Your task to perform on an android device: turn smart compose on in the gmail app Image 0: 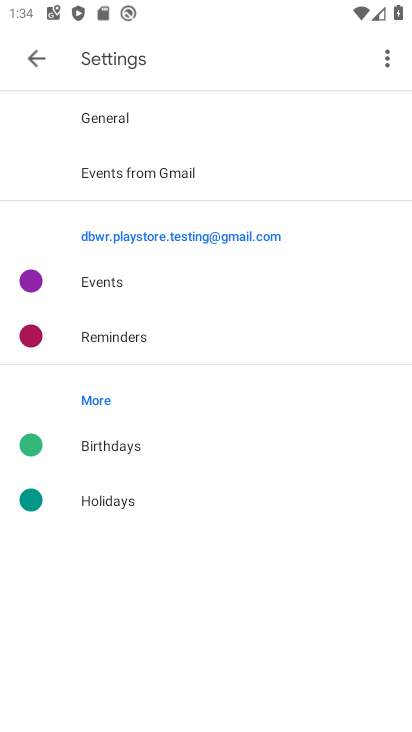
Step 0: press home button
Your task to perform on an android device: turn smart compose on in the gmail app Image 1: 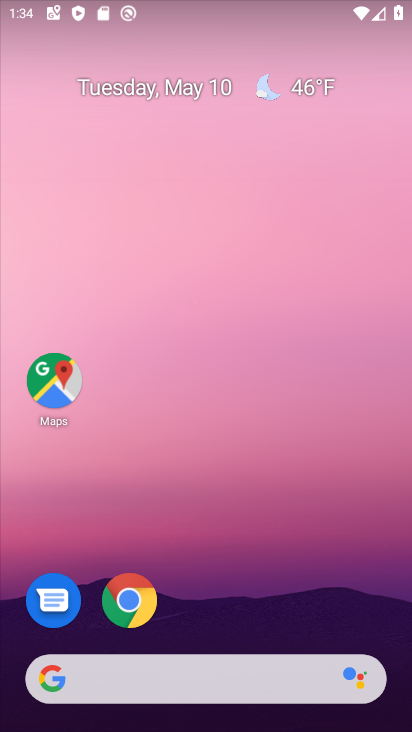
Step 1: drag from (172, 689) to (244, 256)
Your task to perform on an android device: turn smart compose on in the gmail app Image 2: 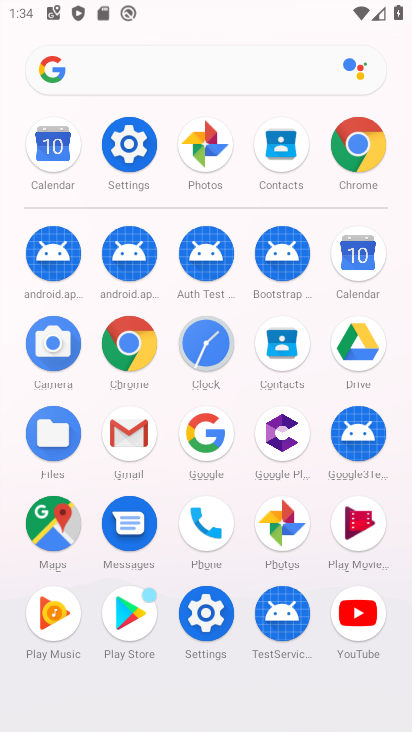
Step 2: click (135, 438)
Your task to perform on an android device: turn smart compose on in the gmail app Image 3: 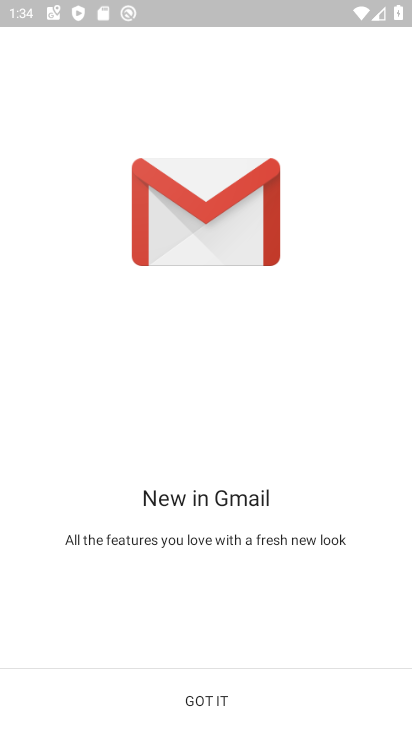
Step 3: click (214, 696)
Your task to perform on an android device: turn smart compose on in the gmail app Image 4: 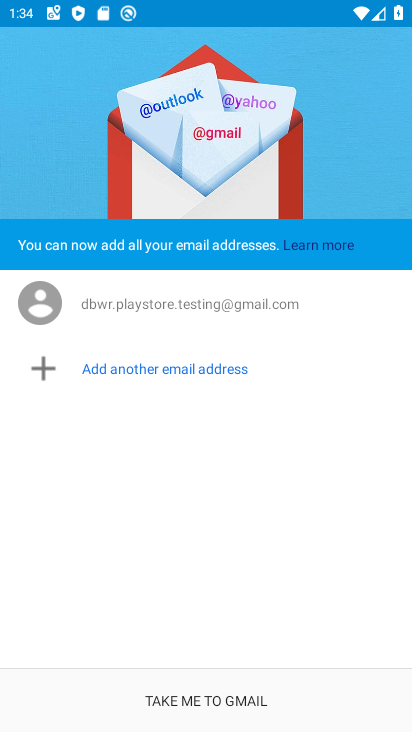
Step 4: click (214, 696)
Your task to perform on an android device: turn smart compose on in the gmail app Image 5: 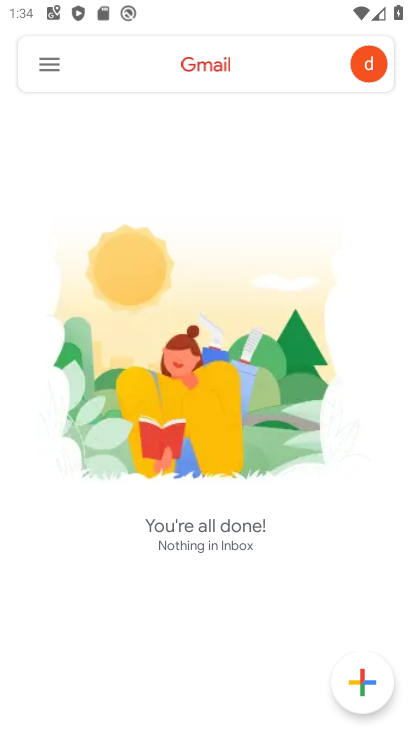
Step 5: click (52, 63)
Your task to perform on an android device: turn smart compose on in the gmail app Image 6: 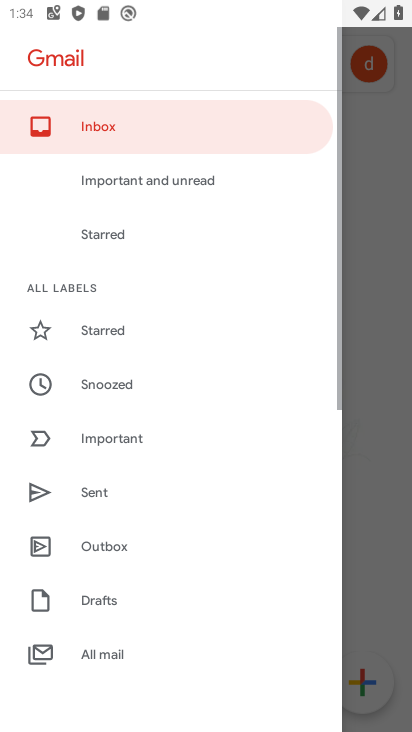
Step 6: drag from (119, 665) to (219, 213)
Your task to perform on an android device: turn smart compose on in the gmail app Image 7: 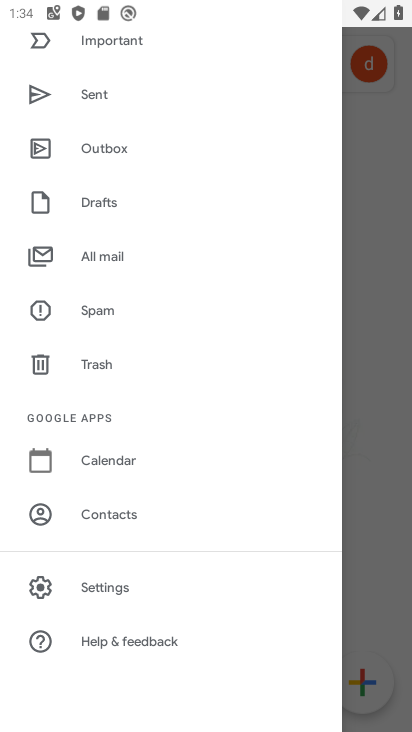
Step 7: click (122, 592)
Your task to perform on an android device: turn smart compose on in the gmail app Image 8: 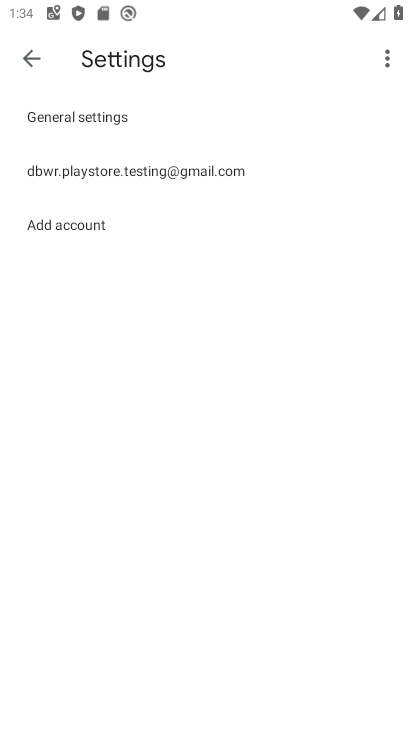
Step 8: click (197, 168)
Your task to perform on an android device: turn smart compose on in the gmail app Image 9: 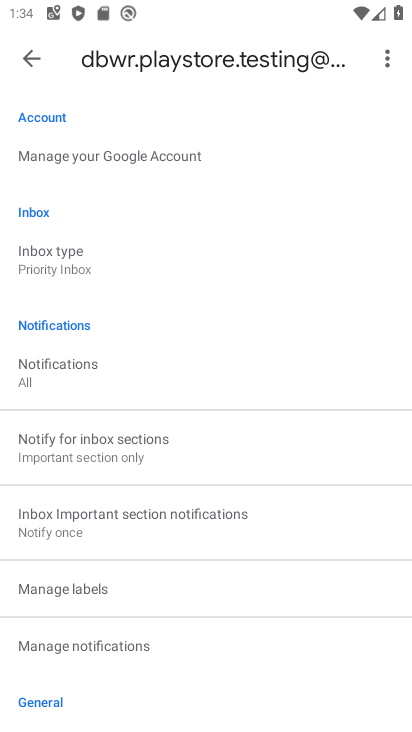
Step 9: task complete